Your task to perform on an android device: Toggle the flashlight Image 0: 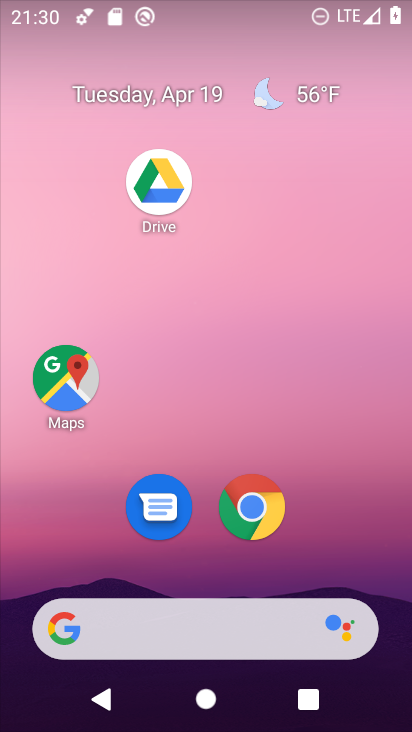
Step 0: drag from (350, 506) to (347, 132)
Your task to perform on an android device: Toggle the flashlight Image 1: 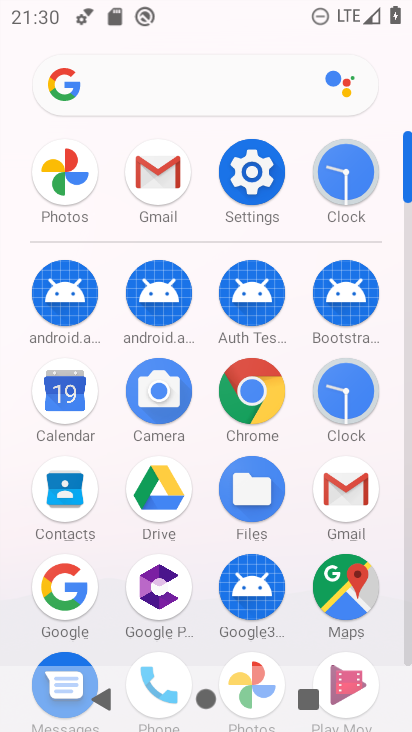
Step 1: click (243, 168)
Your task to perform on an android device: Toggle the flashlight Image 2: 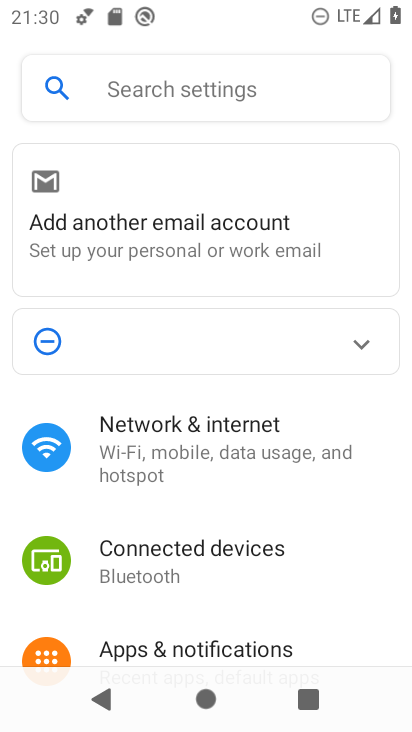
Step 2: click (253, 85)
Your task to perform on an android device: Toggle the flashlight Image 3: 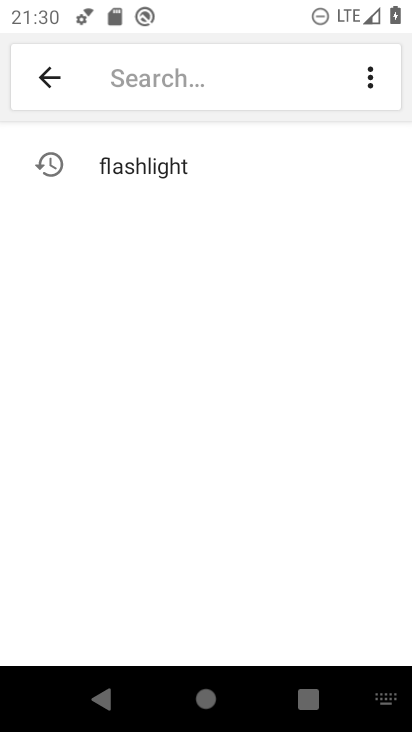
Step 3: click (171, 160)
Your task to perform on an android device: Toggle the flashlight Image 4: 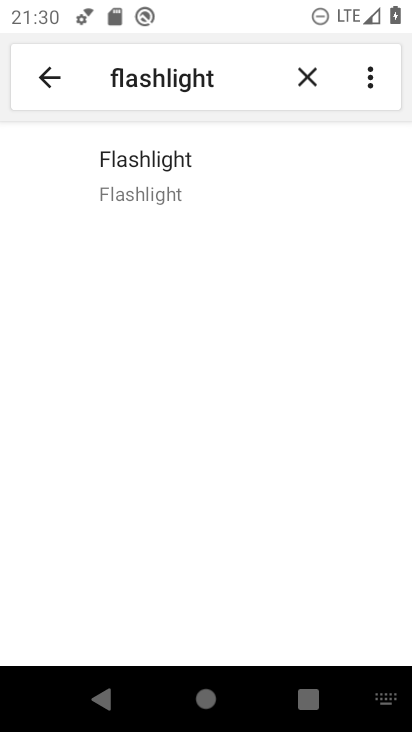
Step 4: click (171, 159)
Your task to perform on an android device: Toggle the flashlight Image 5: 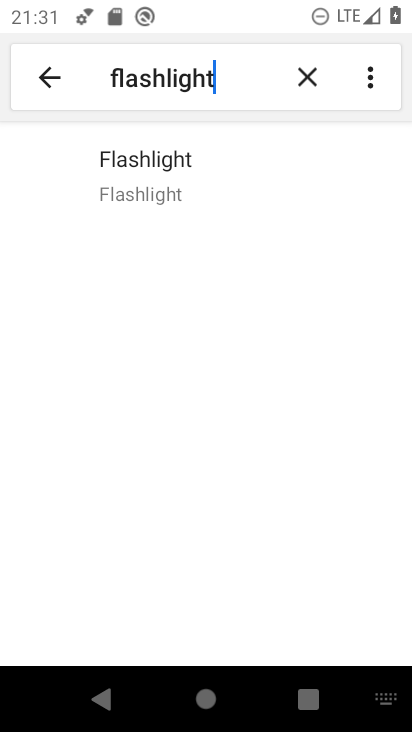
Step 5: task complete